Your task to perform on an android device: turn off airplane mode Image 0: 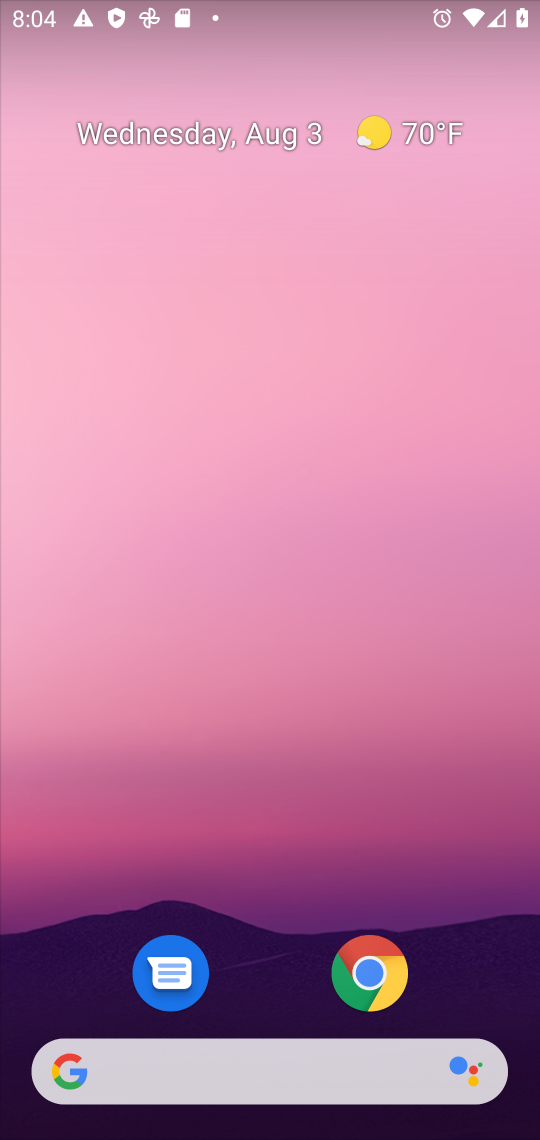
Step 0: drag from (288, 978) to (330, 268)
Your task to perform on an android device: turn off airplane mode Image 1: 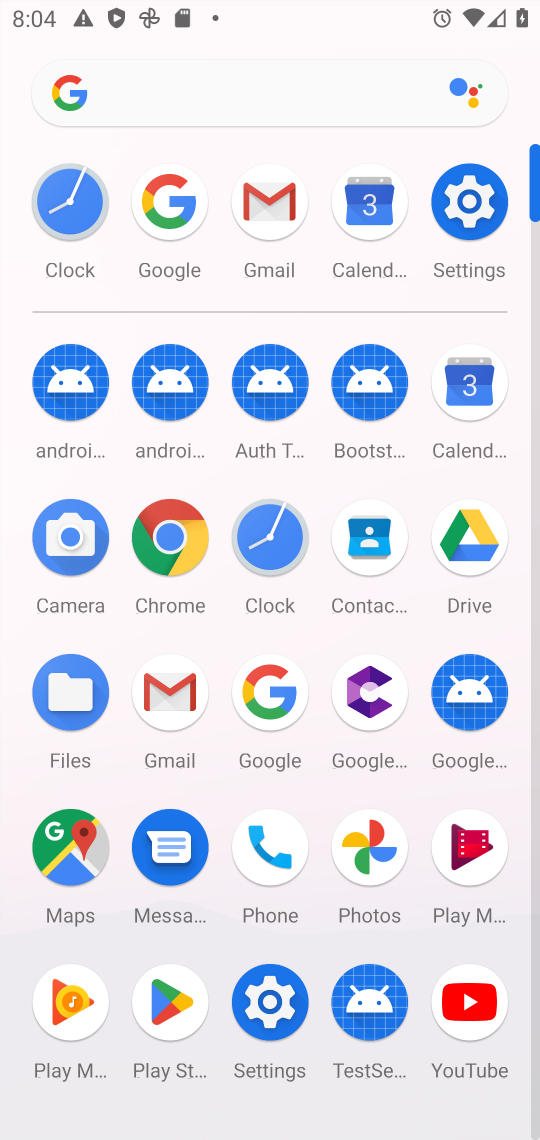
Step 1: click (477, 211)
Your task to perform on an android device: turn off airplane mode Image 2: 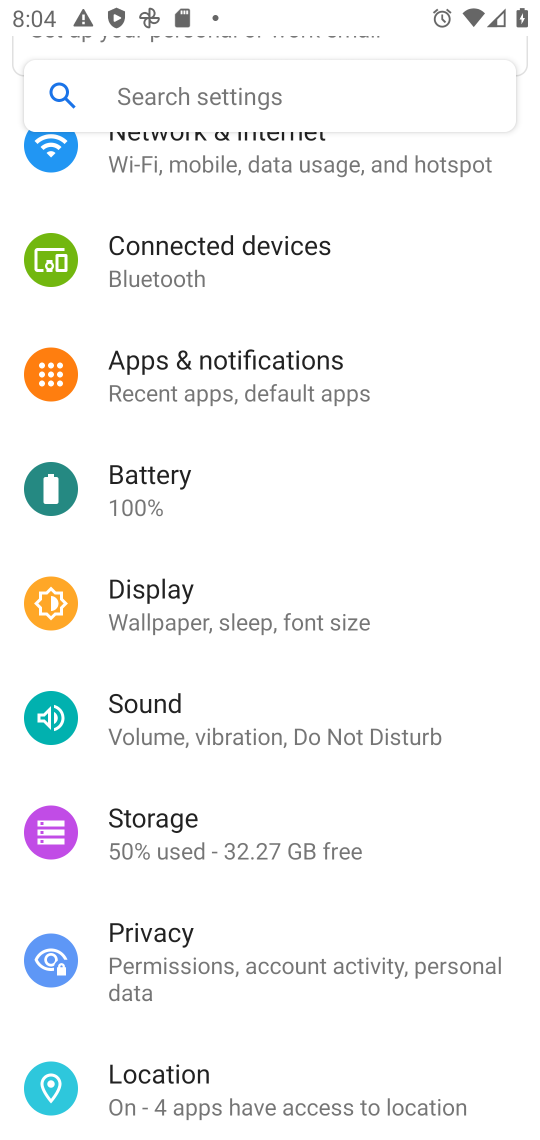
Step 2: click (224, 156)
Your task to perform on an android device: turn off airplane mode Image 3: 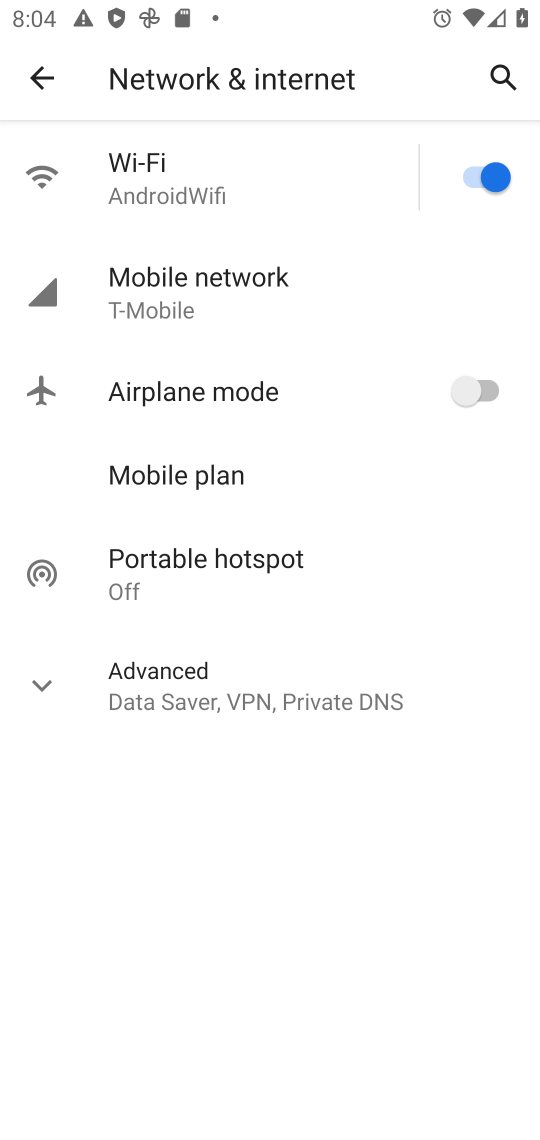
Step 3: task complete